Your task to perform on an android device: uninstall "Google Keep" Image 0: 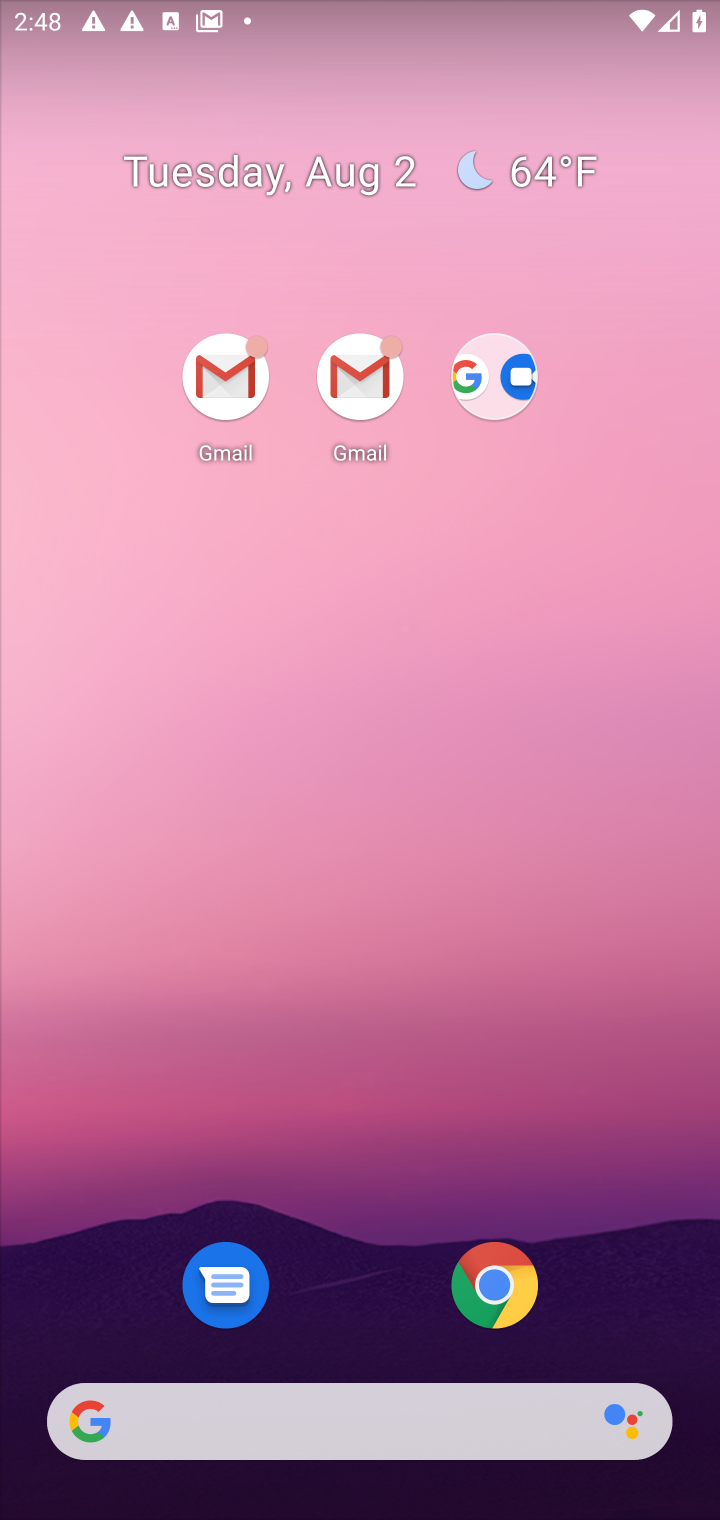
Step 0: drag from (517, 1004) to (539, 30)
Your task to perform on an android device: uninstall "Google Keep" Image 1: 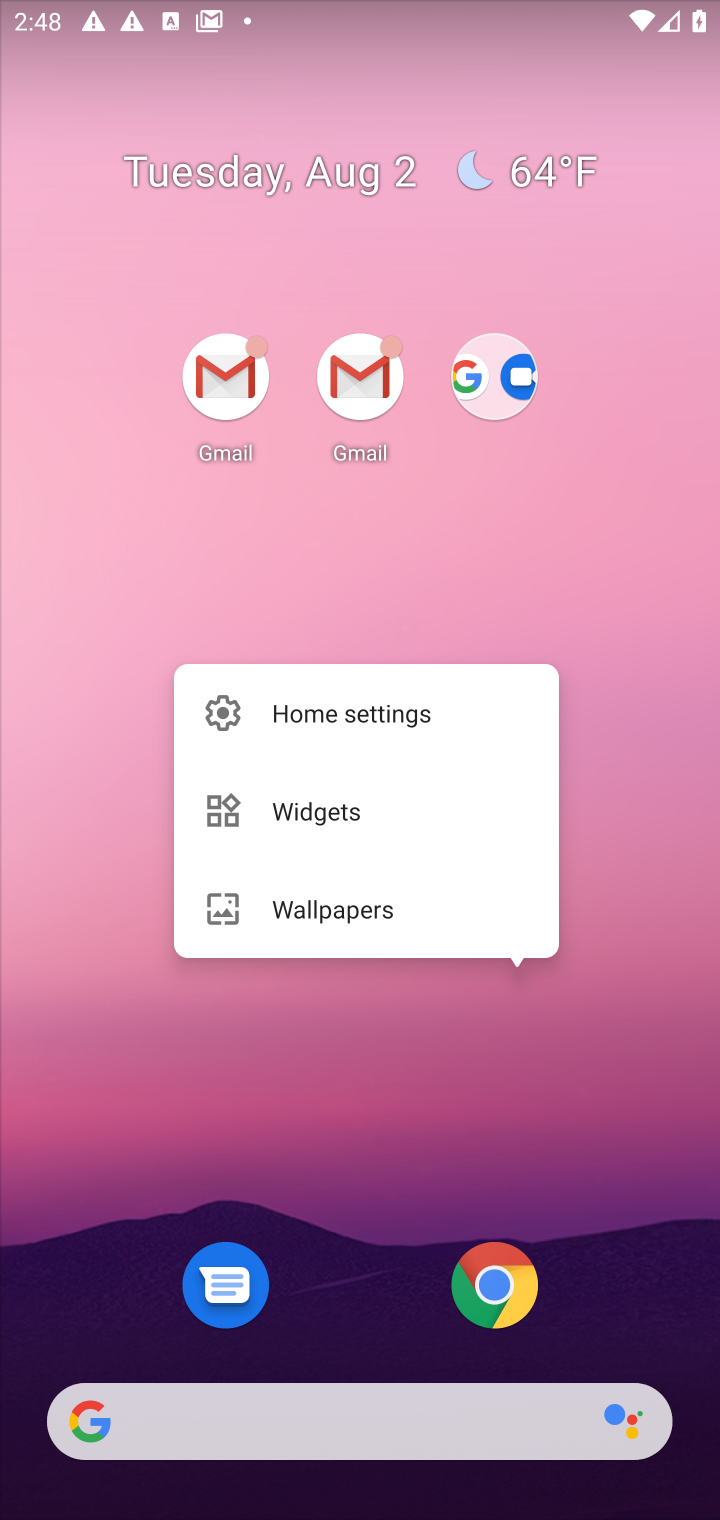
Step 1: click (656, 824)
Your task to perform on an android device: uninstall "Google Keep" Image 2: 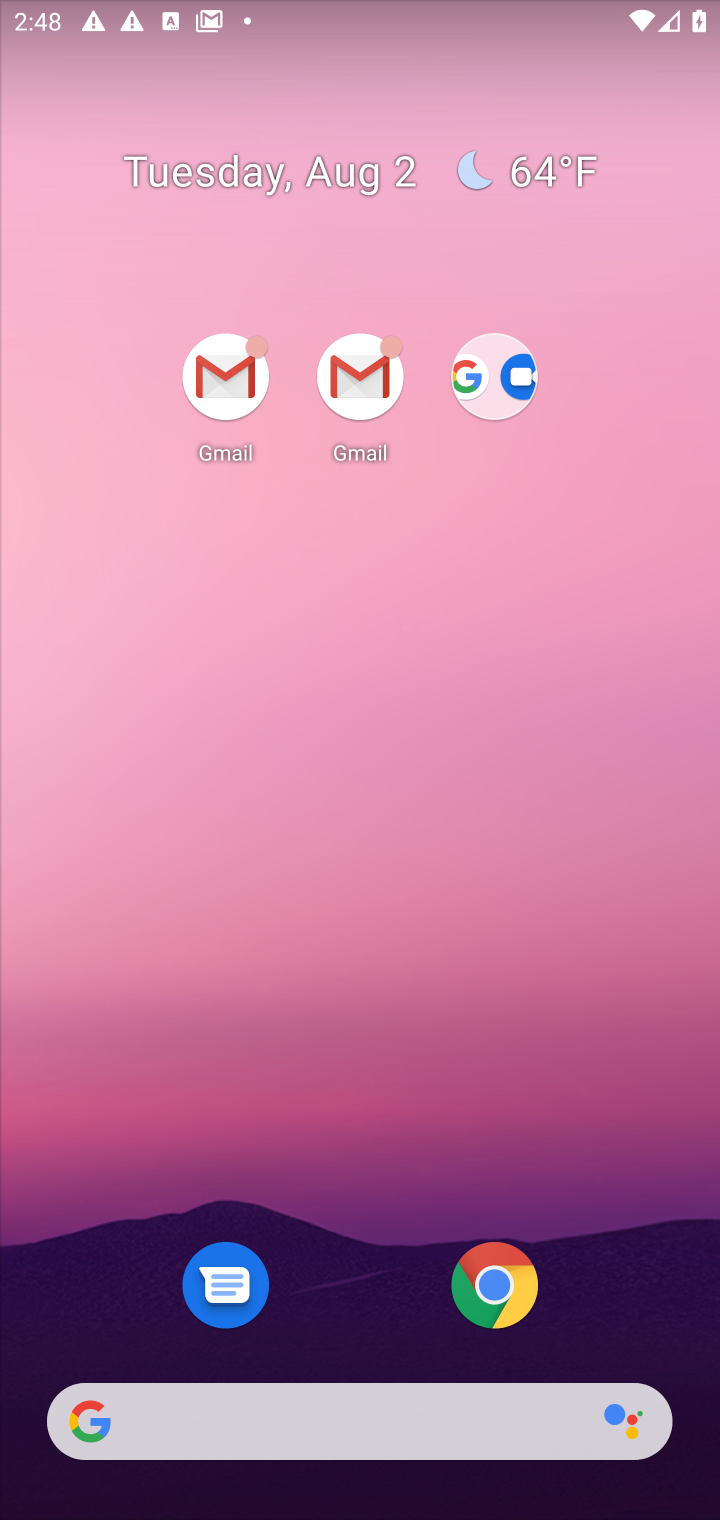
Step 2: drag from (333, 1133) to (411, 57)
Your task to perform on an android device: uninstall "Google Keep" Image 3: 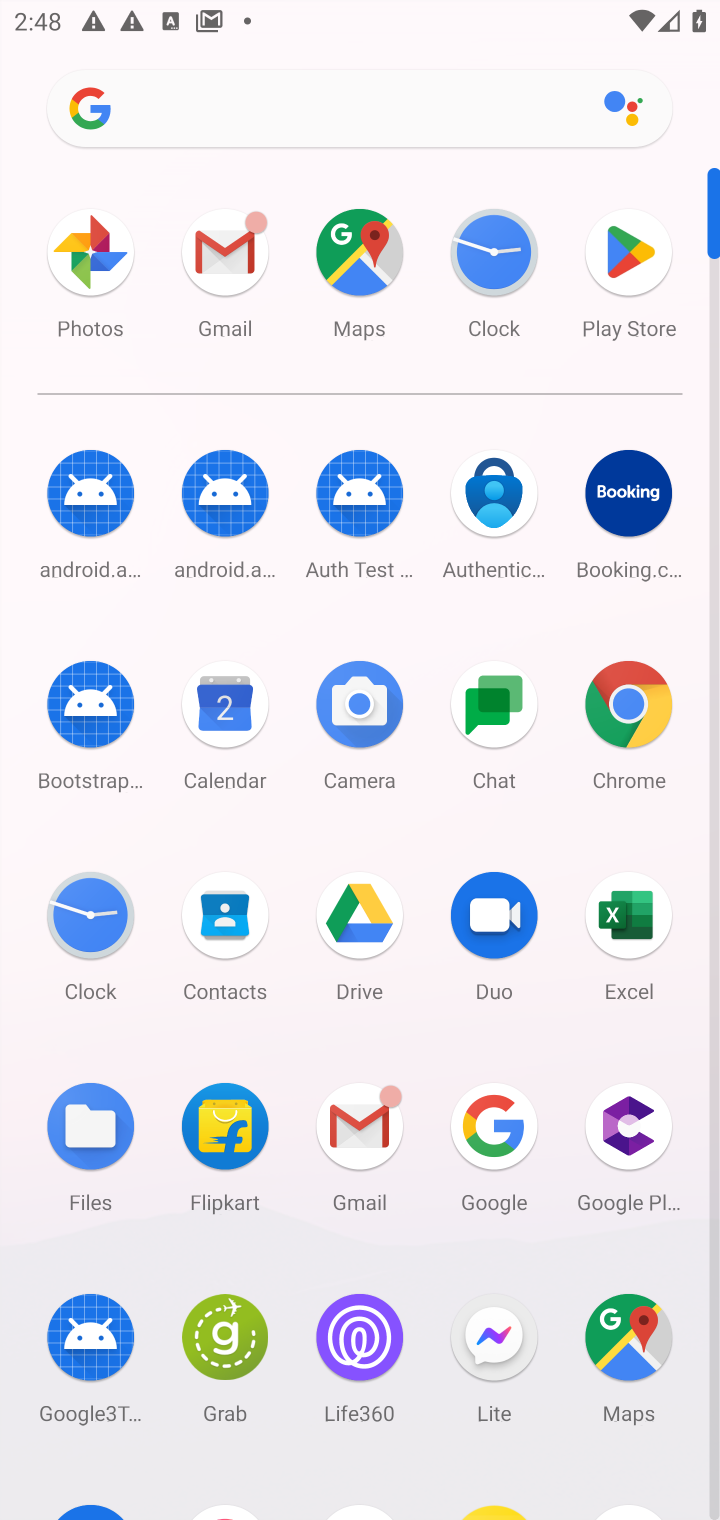
Step 3: click (640, 241)
Your task to perform on an android device: uninstall "Google Keep" Image 4: 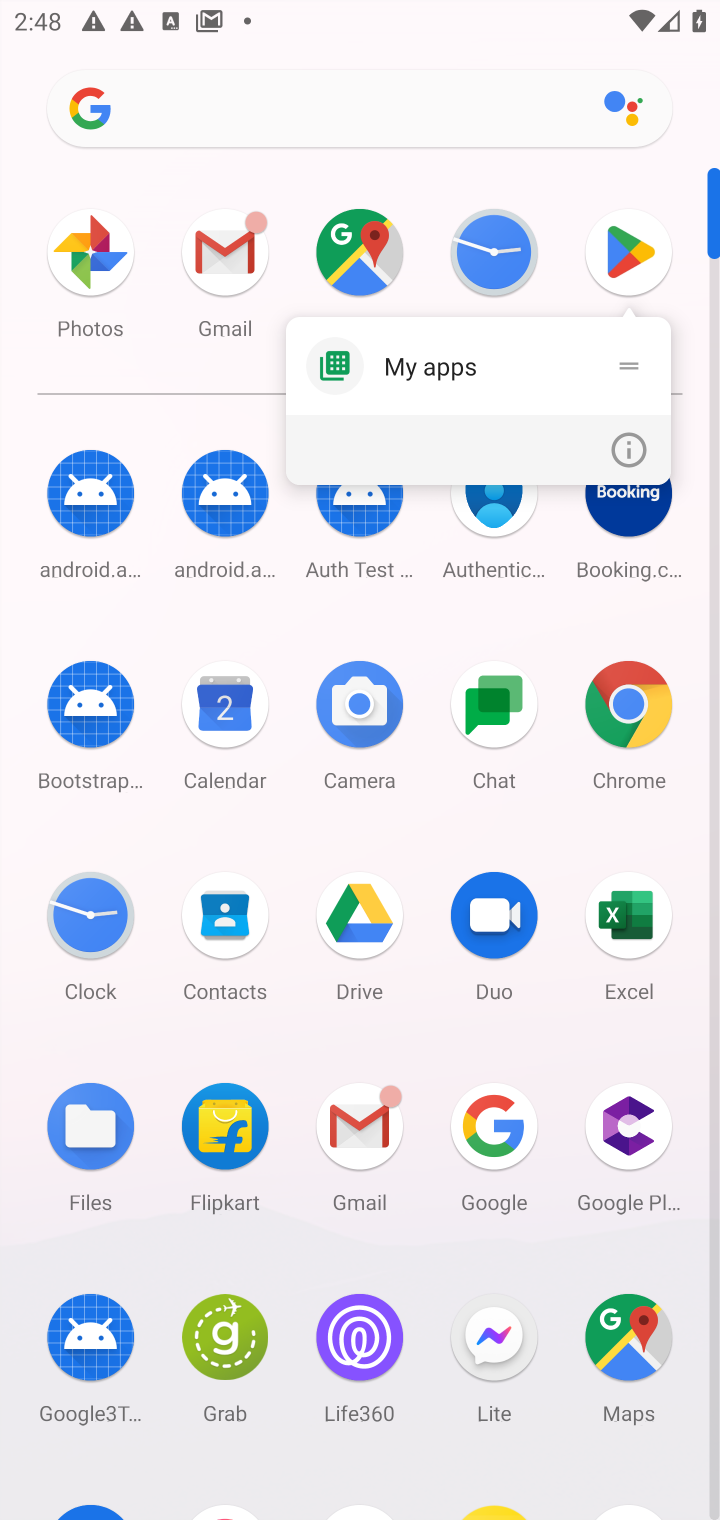
Step 4: click (420, 1237)
Your task to perform on an android device: uninstall "Google Keep" Image 5: 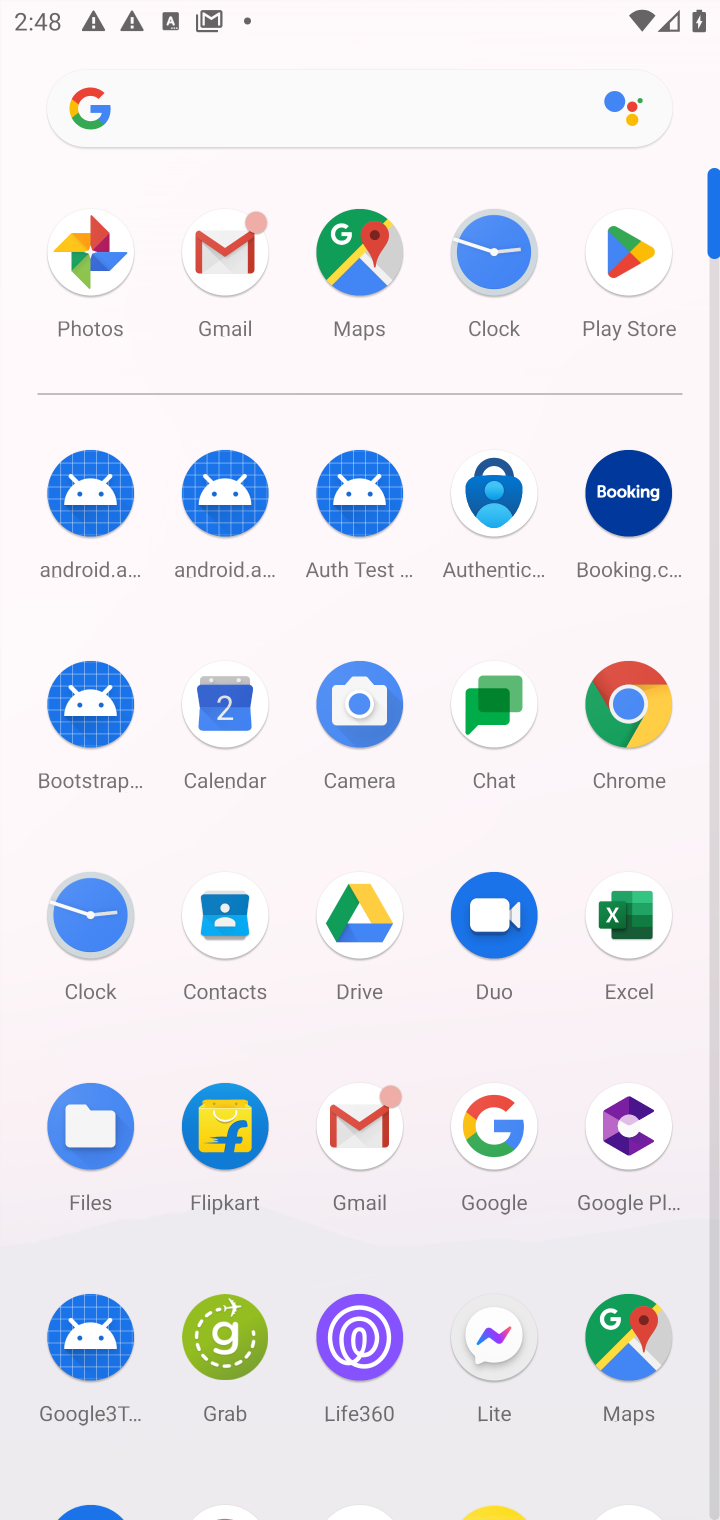
Step 5: drag from (420, 1237) to (445, 373)
Your task to perform on an android device: uninstall "Google Keep" Image 6: 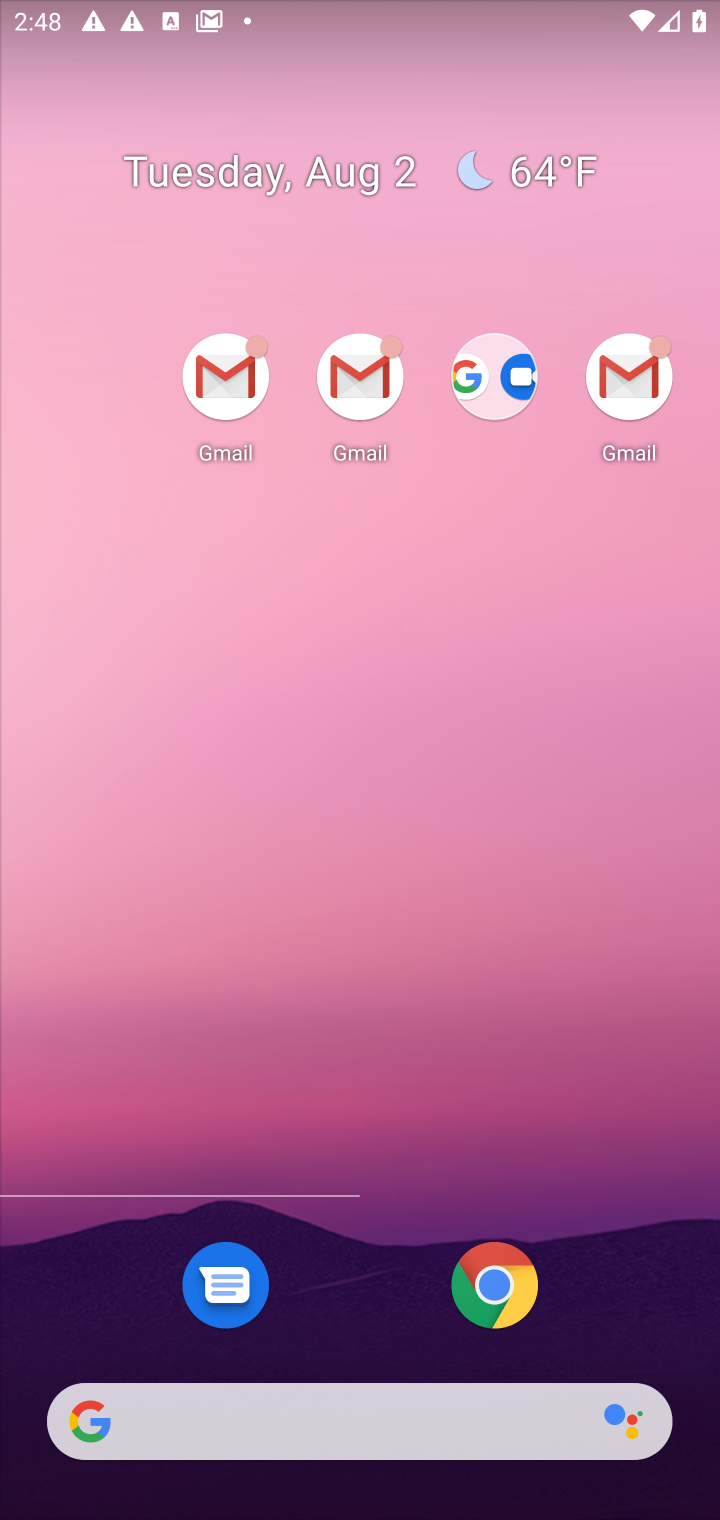
Step 6: drag from (642, 959) to (636, 5)
Your task to perform on an android device: uninstall "Google Keep" Image 7: 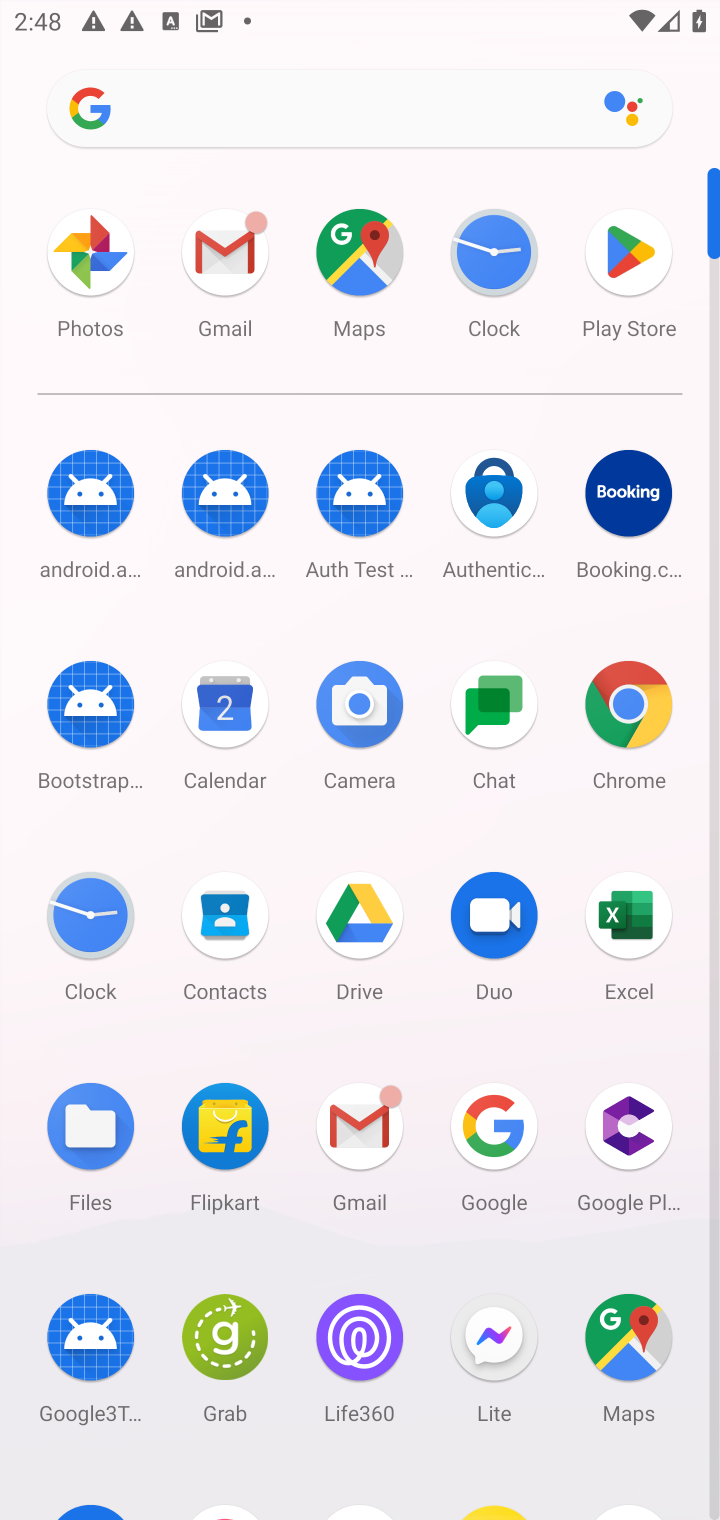
Step 7: drag from (427, 1262) to (426, 443)
Your task to perform on an android device: uninstall "Google Keep" Image 8: 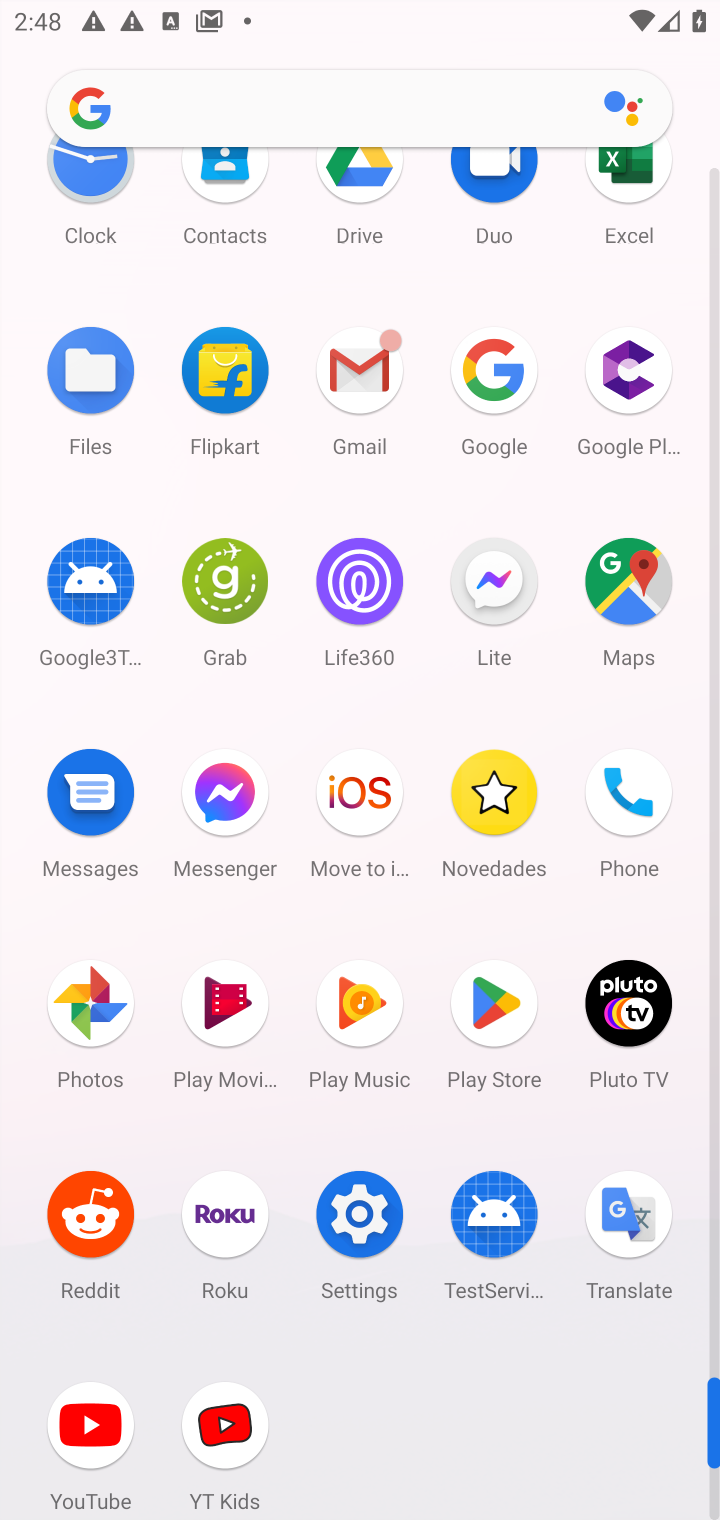
Step 8: click (489, 1009)
Your task to perform on an android device: uninstall "Google Keep" Image 9: 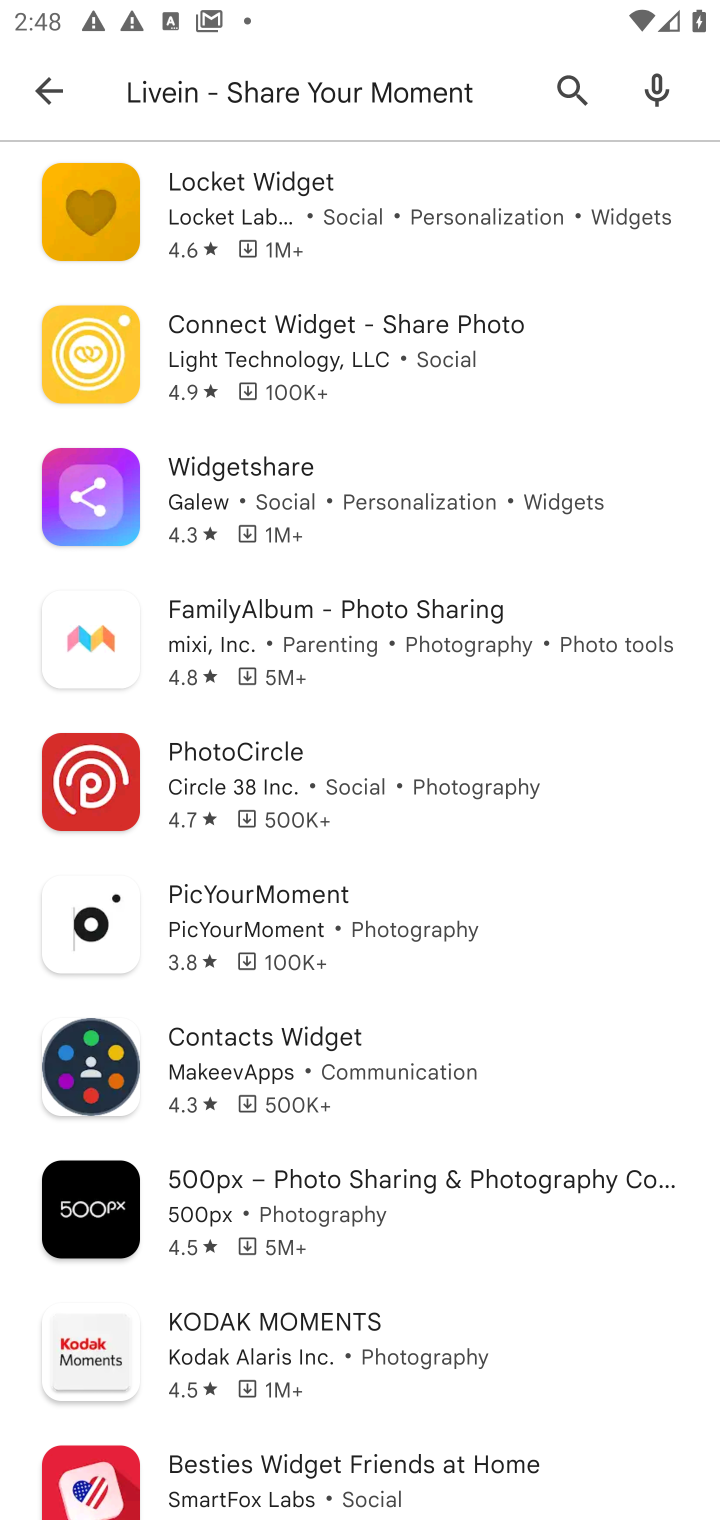
Step 9: click (383, 51)
Your task to perform on an android device: uninstall "Google Keep" Image 10: 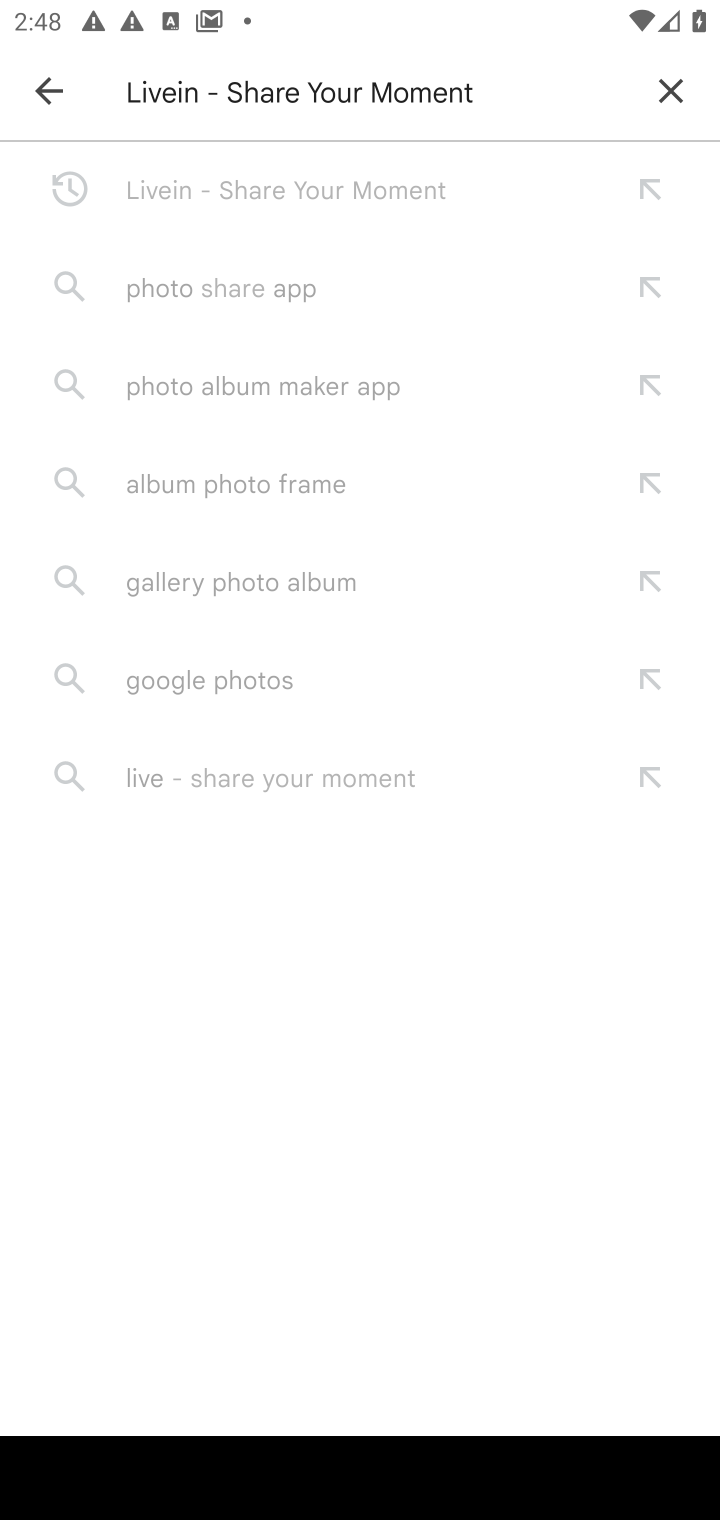
Step 10: click (663, 90)
Your task to perform on an android device: uninstall "Google Keep" Image 11: 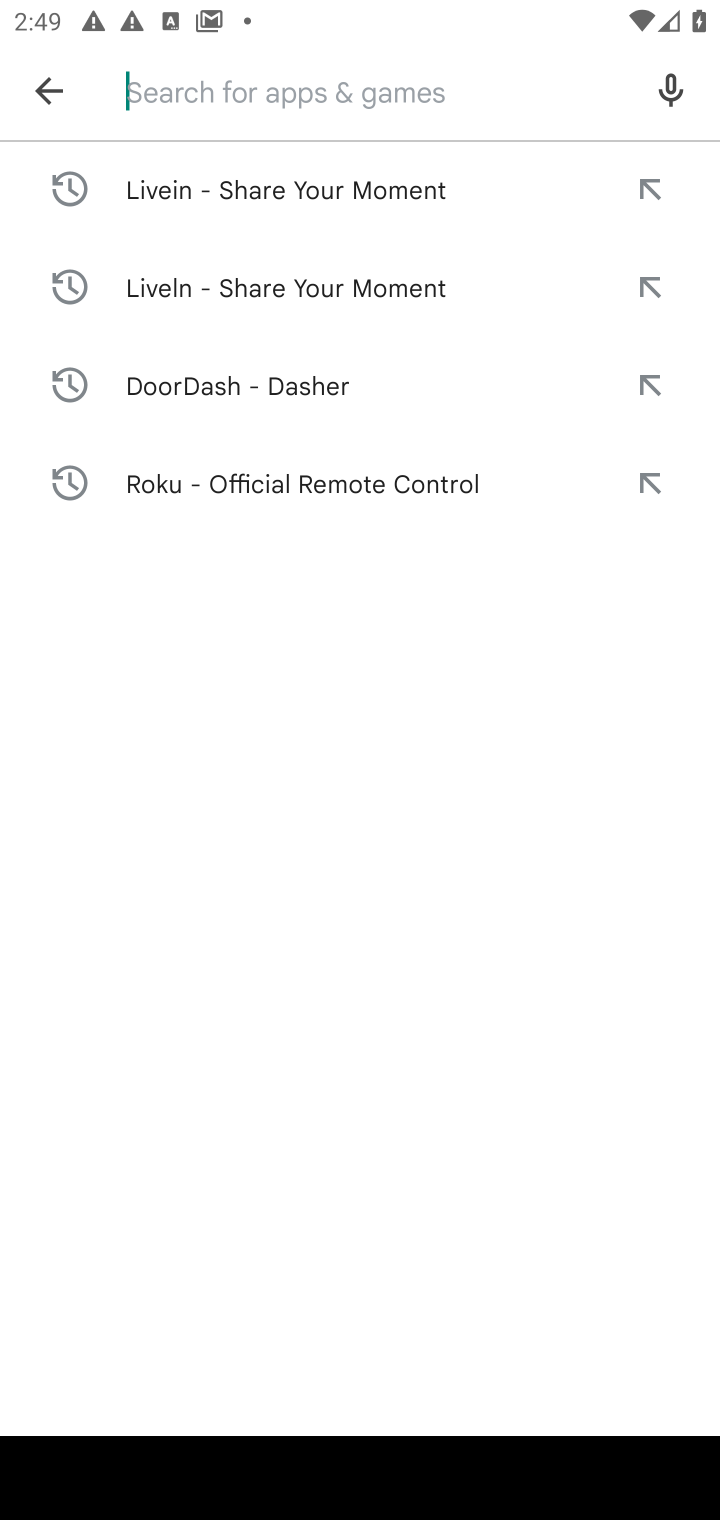
Step 11: type "Google Keep"
Your task to perform on an android device: uninstall "Google Keep" Image 12: 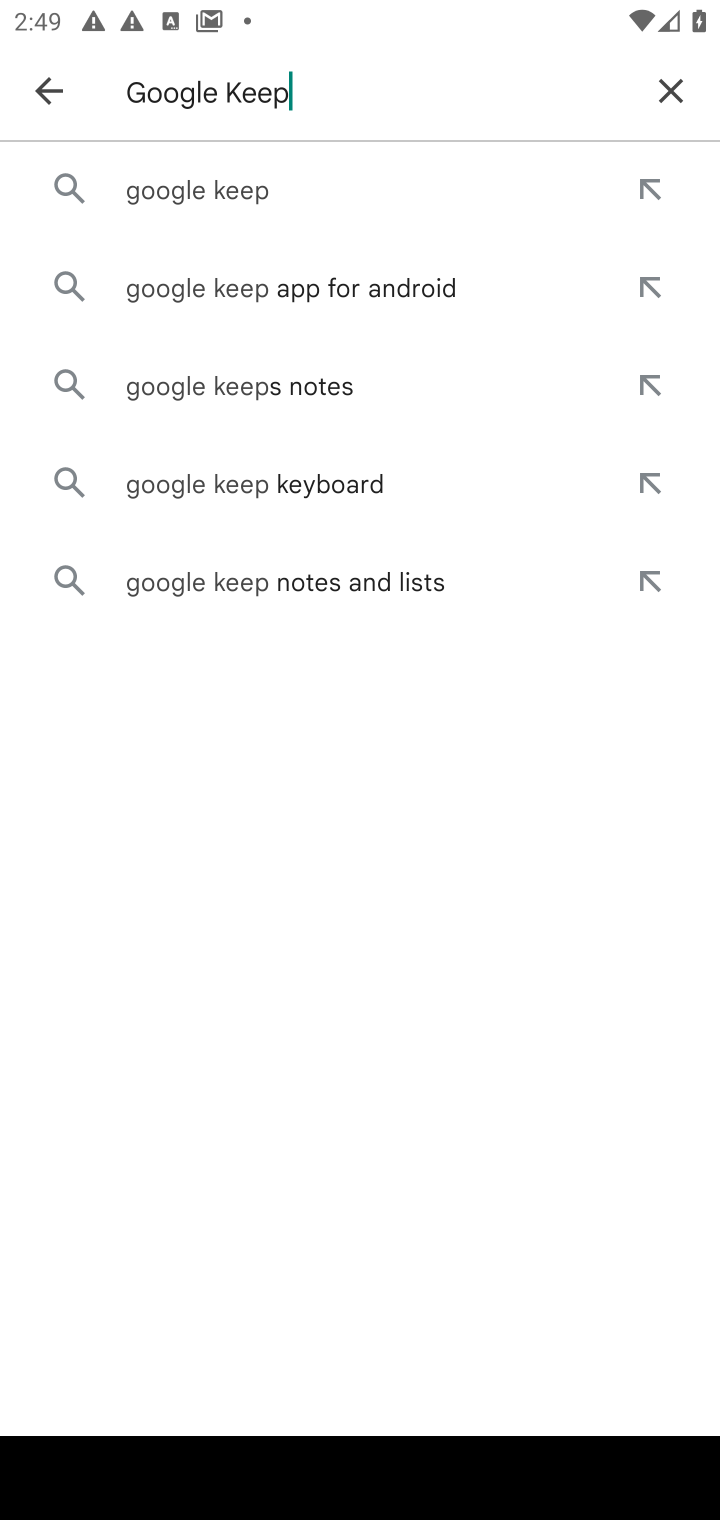
Step 12: click (244, 167)
Your task to perform on an android device: uninstall "Google Keep" Image 13: 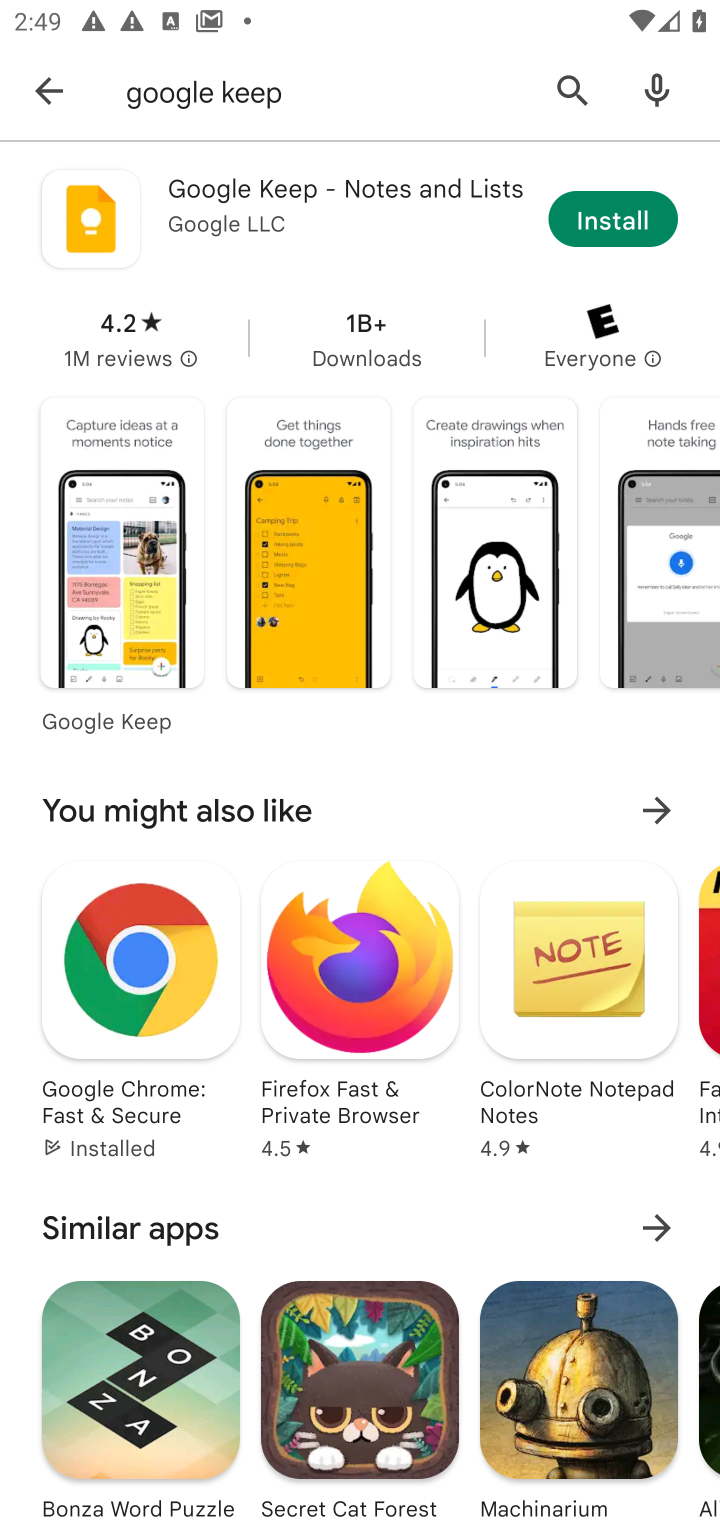
Step 13: task complete